Your task to perform on an android device: empty trash in the gmail app Image 0: 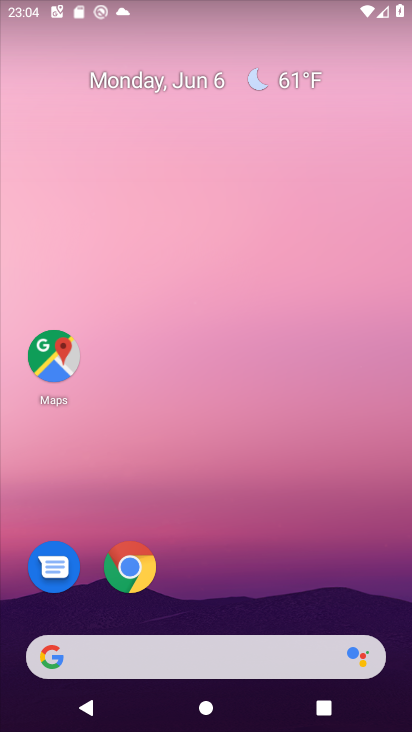
Step 0: drag from (242, 728) to (226, 69)
Your task to perform on an android device: empty trash in the gmail app Image 1: 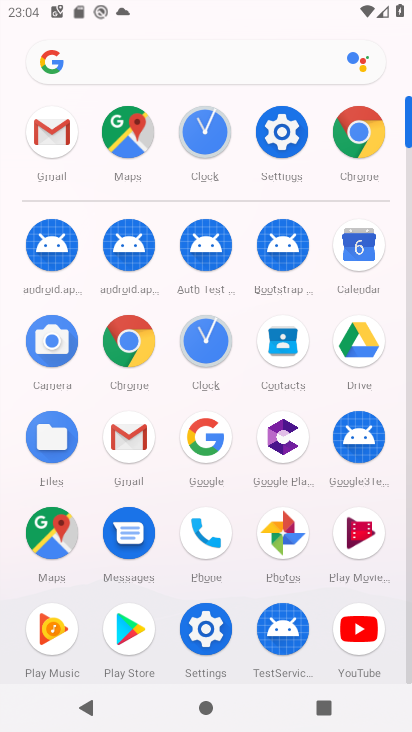
Step 1: click (130, 440)
Your task to perform on an android device: empty trash in the gmail app Image 2: 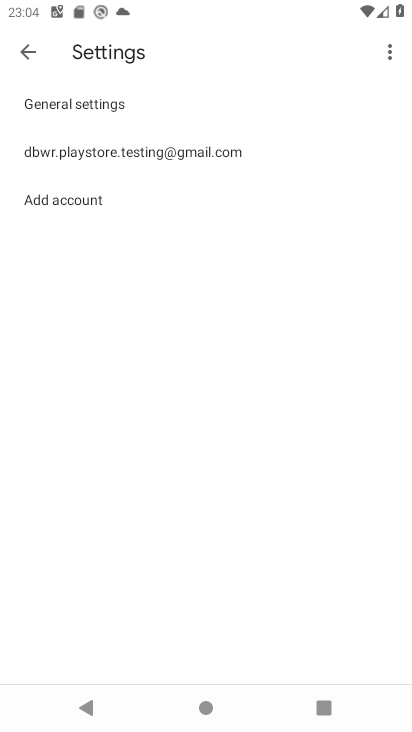
Step 2: click (28, 54)
Your task to perform on an android device: empty trash in the gmail app Image 3: 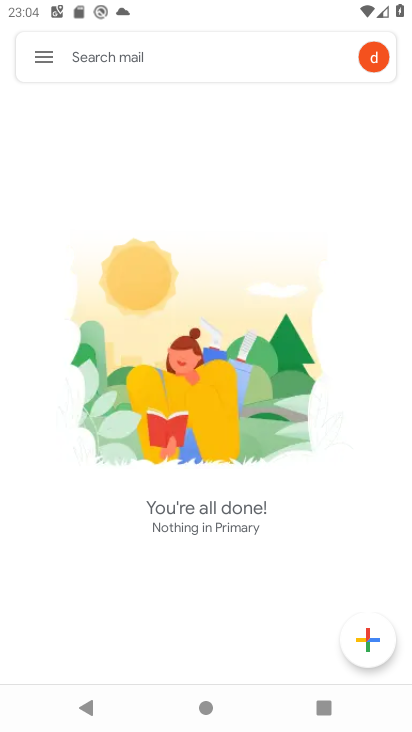
Step 3: click (47, 54)
Your task to perform on an android device: empty trash in the gmail app Image 4: 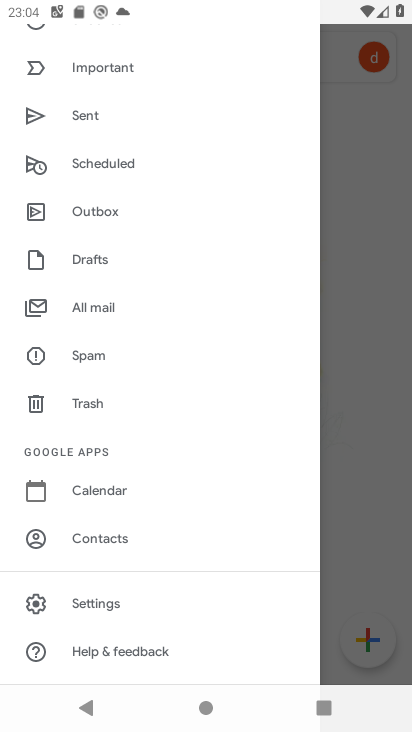
Step 4: click (78, 397)
Your task to perform on an android device: empty trash in the gmail app Image 5: 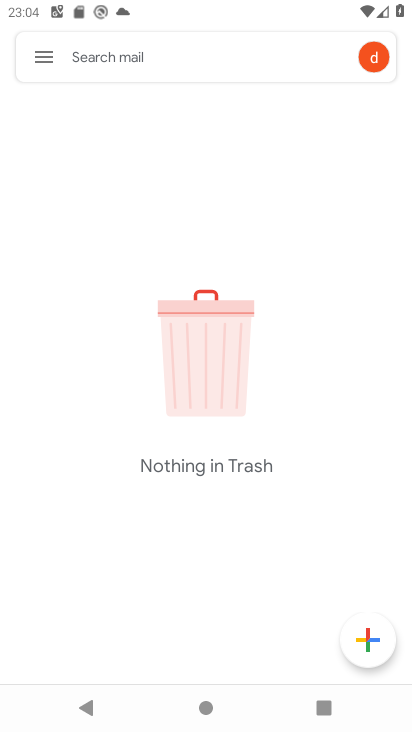
Step 5: task complete